Your task to perform on an android device: Open accessibility settings Image 0: 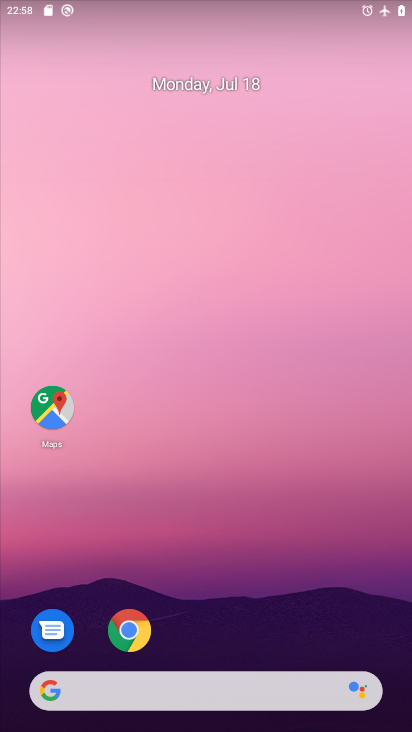
Step 0: drag from (251, 632) to (251, 150)
Your task to perform on an android device: Open accessibility settings Image 1: 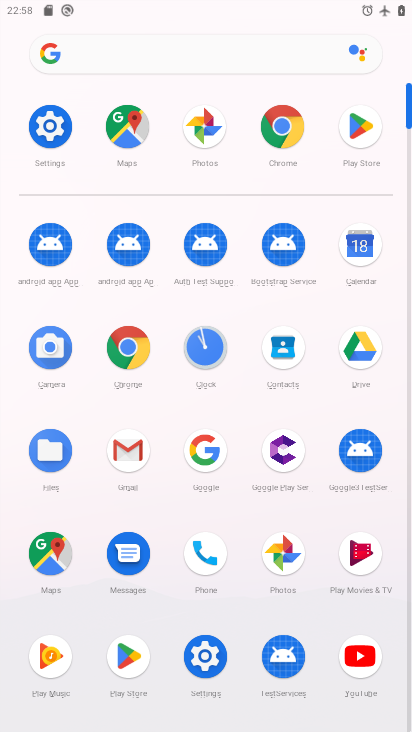
Step 1: click (63, 128)
Your task to perform on an android device: Open accessibility settings Image 2: 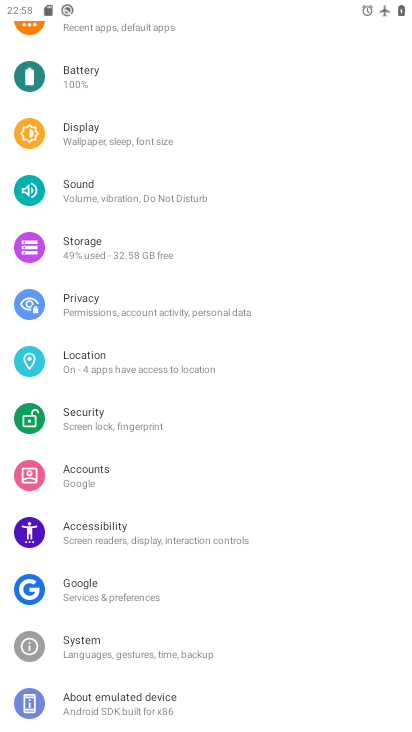
Step 2: click (117, 535)
Your task to perform on an android device: Open accessibility settings Image 3: 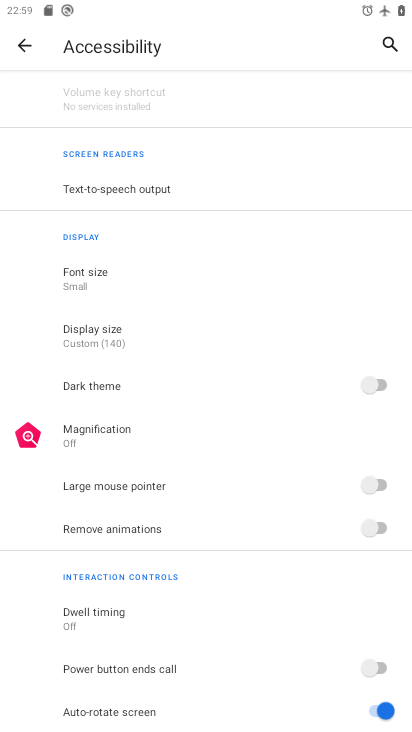
Step 3: task complete